Your task to perform on an android device: Open Amazon Image 0: 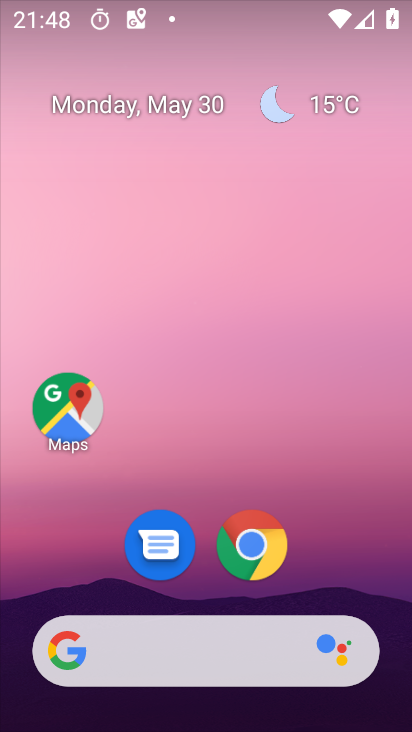
Step 0: click (246, 548)
Your task to perform on an android device: Open Amazon Image 1: 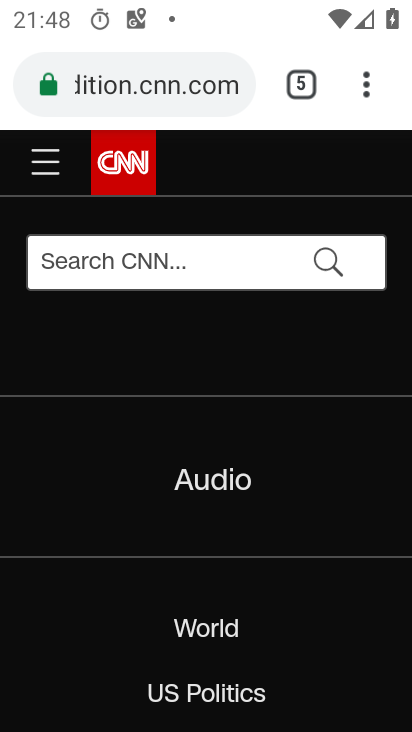
Step 1: click (313, 84)
Your task to perform on an android device: Open Amazon Image 2: 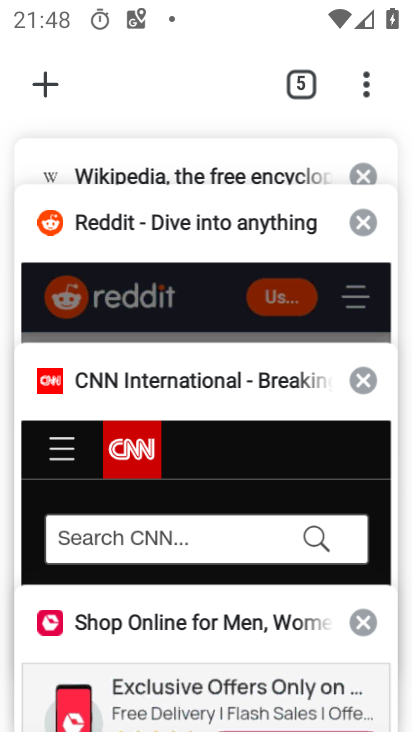
Step 2: click (48, 81)
Your task to perform on an android device: Open Amazon Image 3: 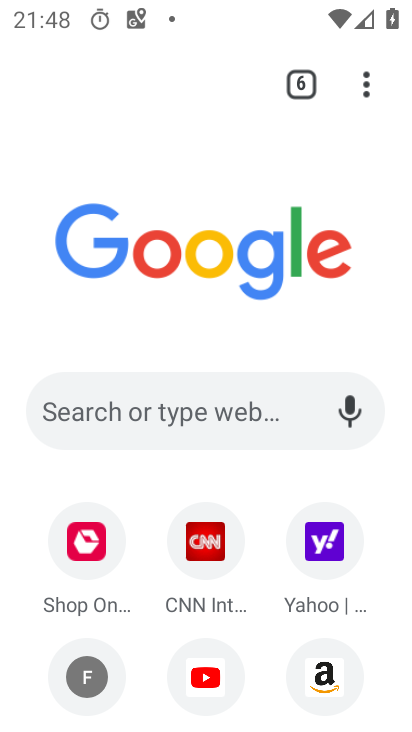
Step 3: click (332, 675)
Your task to perform on an android device: Open Amazon Image 4: 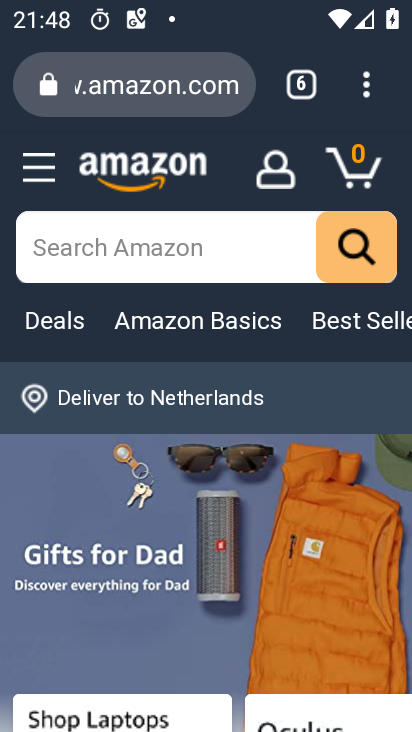
Step 4: task complete